Your task to perform on an android device: Go to internet settings Image 0: 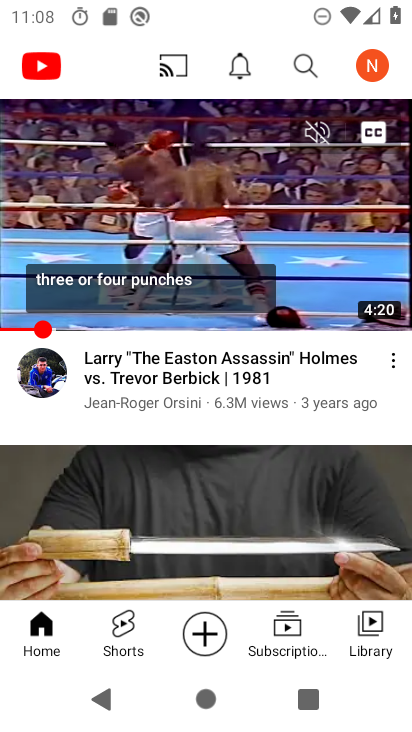
Step 0: press home button
Your task to perform on an android device: Go to internet settings Image 1: 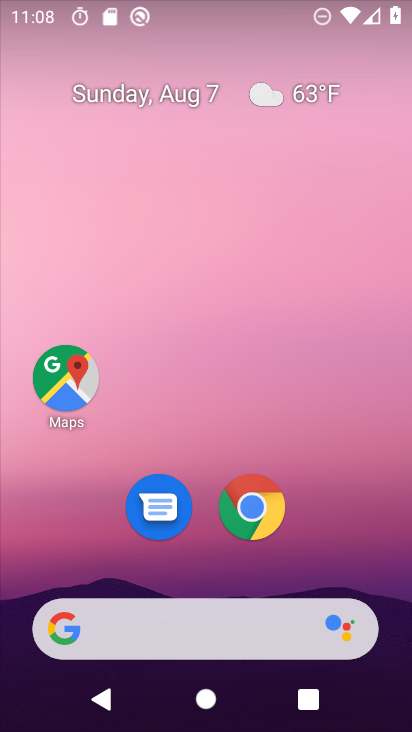
Step 1: drag from (348, 514) to (258, 51)
Your task to perform on an android device: Go to internet settings Image 2: 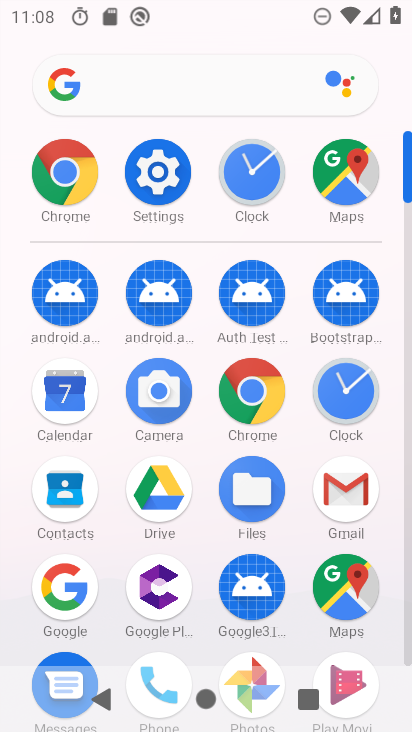
Step 2: drag from (229, 560) to (219, 158)
Your task to perform on an android device: Go to internet settings Image 3: 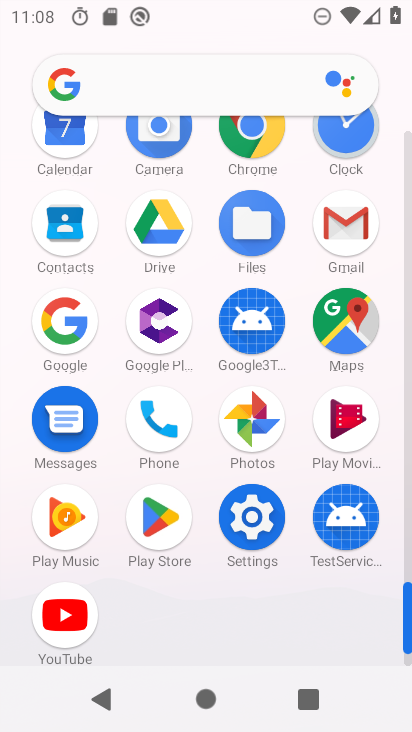
Step 3: click (257, 506)
Your task to perform on an android device: Go to internet settings Image 4: 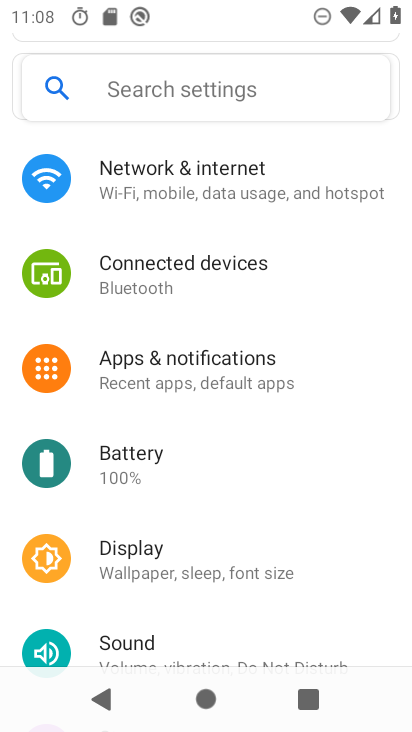
Step 4: click (198, 179)
Your task to perform on an android device: Go to internet settings Image 5: 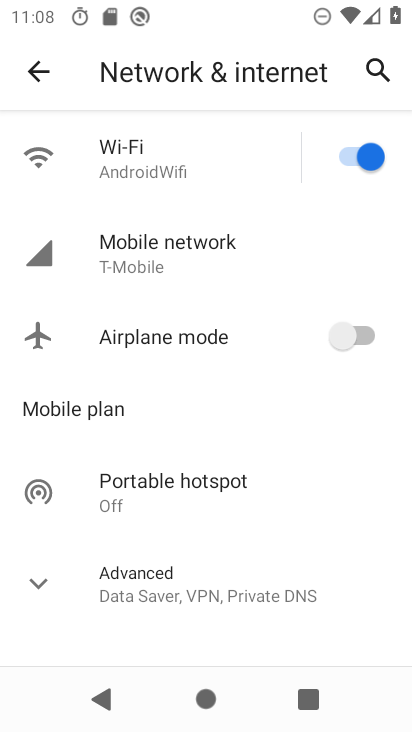
Step 5: click (160, 592)
Your task to perform on an android device: Go to internet settings Image 6: 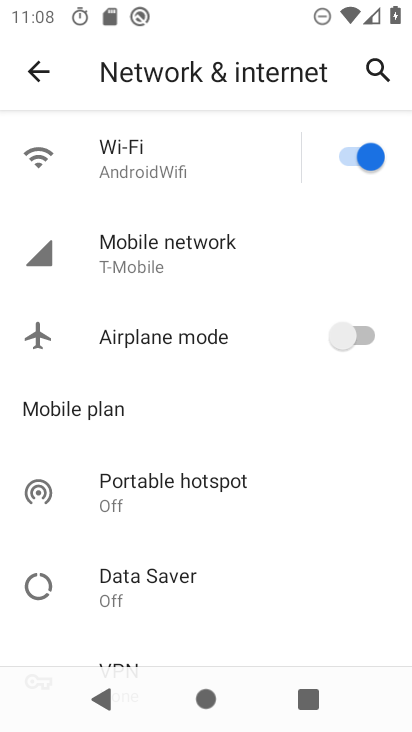
Step 6: task complete